Your task to perform on an android device: Open accessibility settings Image 0: 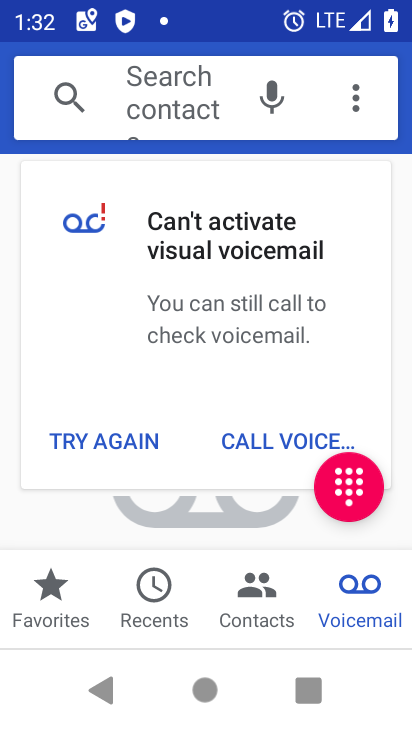
Step 0: press home button
Your task to perform on an android device: Open accessibility settings Image 1: 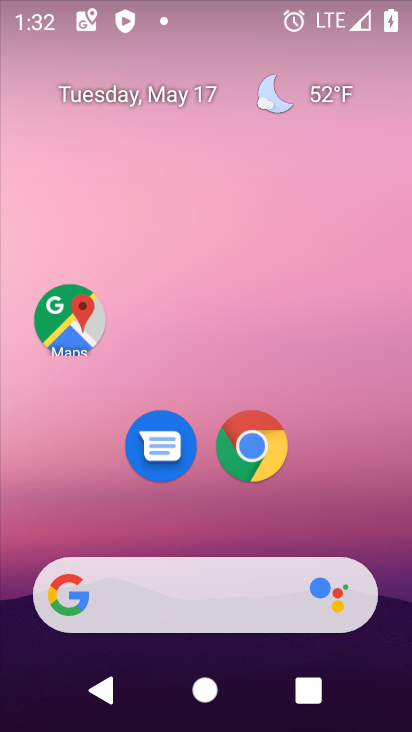
Step 1: drag from (190, 530) to (225, 190)
Your task to perform on an android device: Open accessibility settings Image 2: 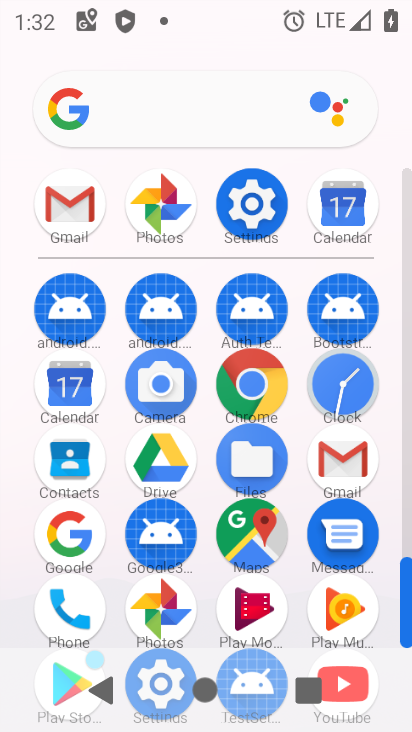
Step 2: click (256, 204)
Your task to perform on an android device: Open accessibility settings Image 3: 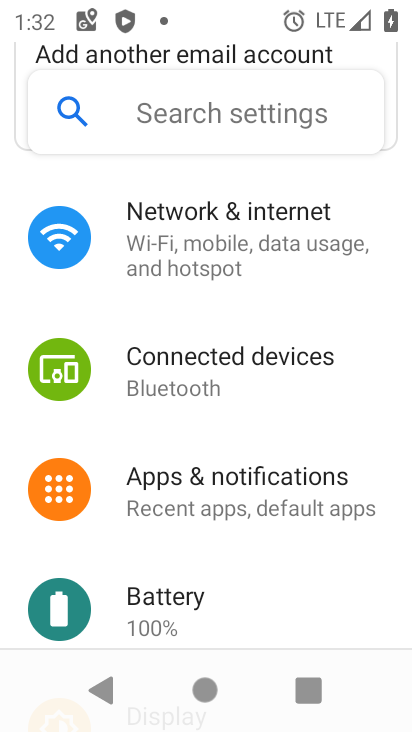
Step 3: drag from (252, 601) to (336, 344)
Your task to perform on an android device: Open accessibility settings Image 4: 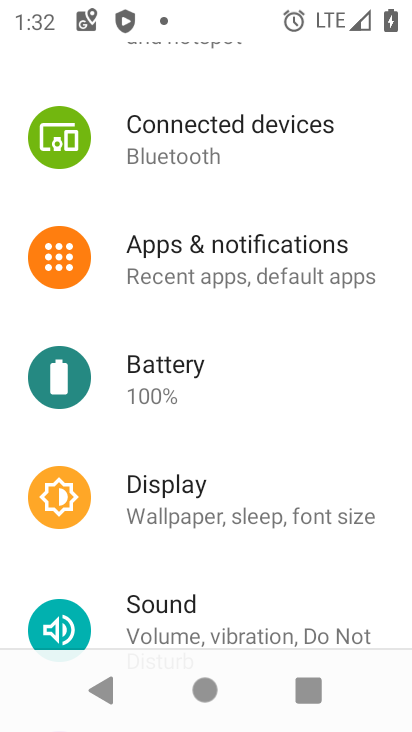
Step 4: drag from (263, 591) to (319, 368)
Your task to perform on an android device: Open accessibility settings Image 5: 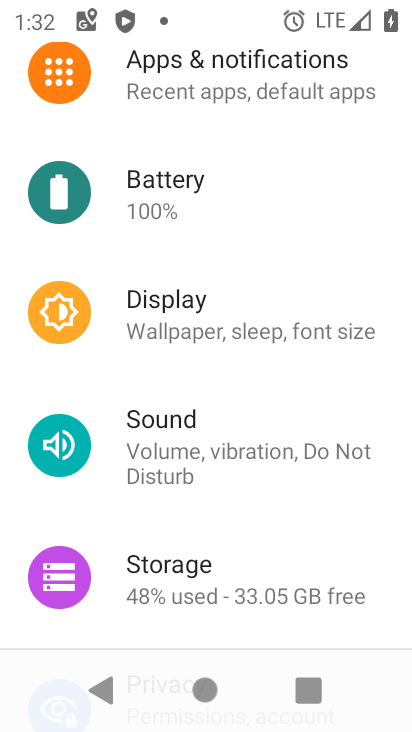
Step 5: drag from (283, 624) to (337, 376)
Your task to perform on an android device: Open accessibility settings Image 6: 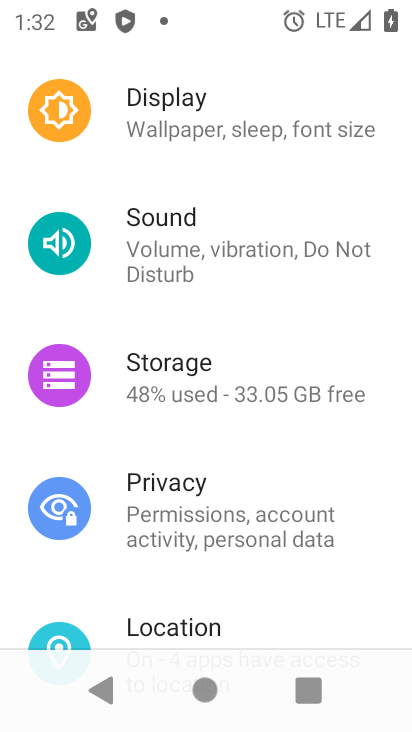
Step 6: drag from (292, 616) to (352, 388)
Your task to perform on an android device: Open accessibility settings Image 7: 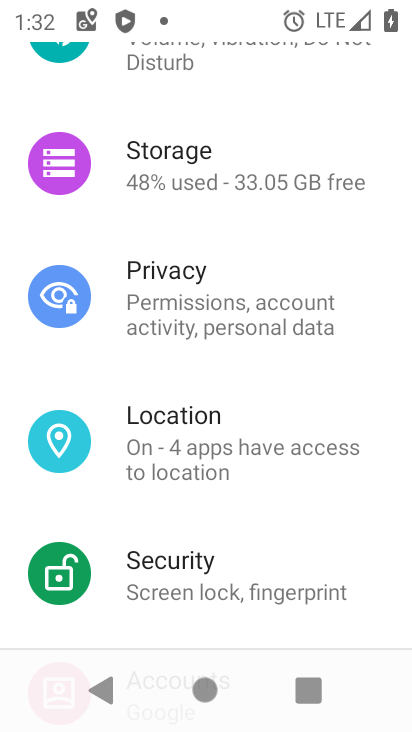
Step 7: drag from (254, 631) to (346, 380)
Your task to perform on an android device: Open accessibility settings Image 8: 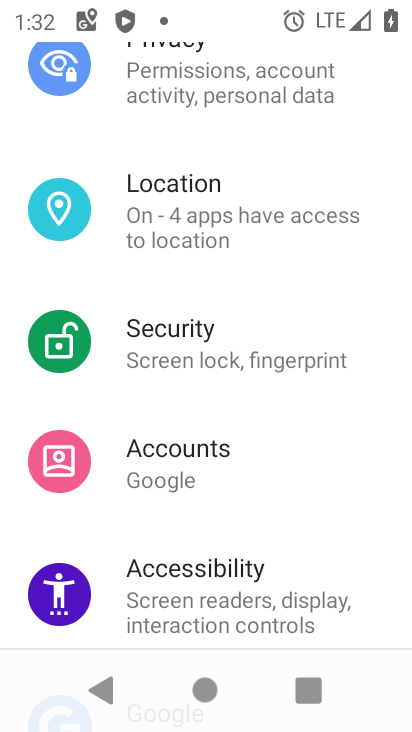
Step 8: click (200, 607)
Your task to perform on an android device: Open accessibility settings Image 9: 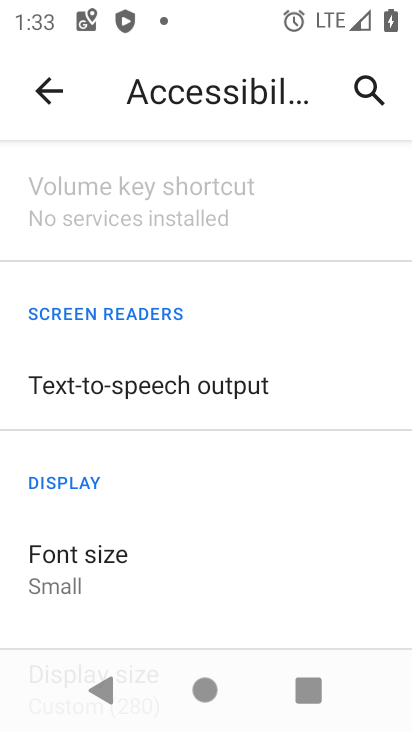
Step 9: task complete